Your task to perform on an android device: open chrome and create a bookmark for the current page Image 0: 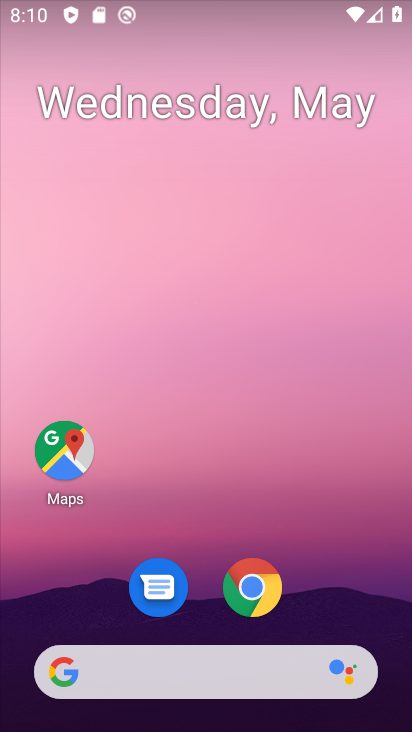
Step 0: click (251, 585)
Your task to perform on an android device: open chrome and create a bookmark for the current page Image 1: 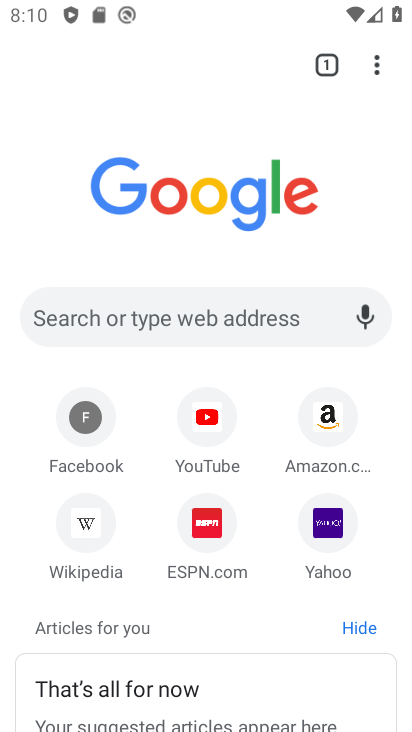
Step 1: click (375, 68)
Your task to perform on an android device: open chrome and create a bookmark for the current page Image 2: 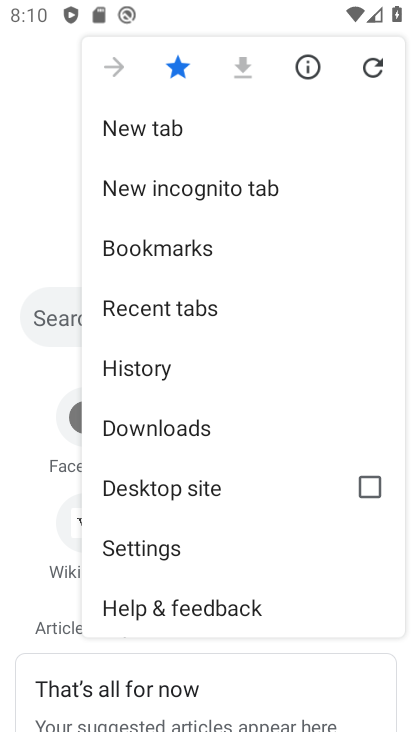
Step 2: task complete